Your task to perform on an android device: Open Youtube and go to "Your channel" Image 0: 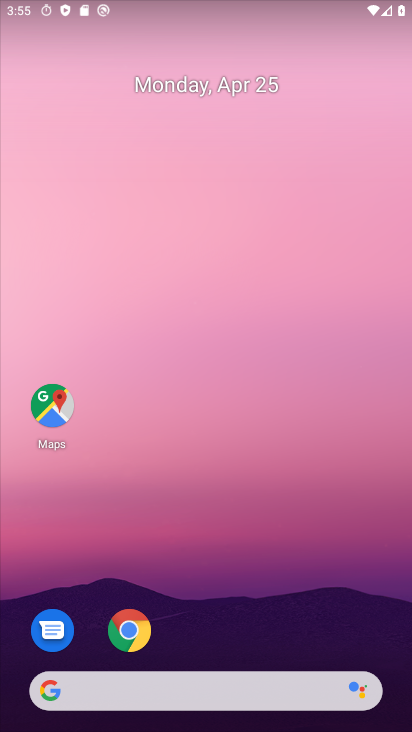
Step 0: drag from (341, 521) to (370, 100)
Your task to perform on an android device: Open Youtube and go to "Your channel" Image 1: 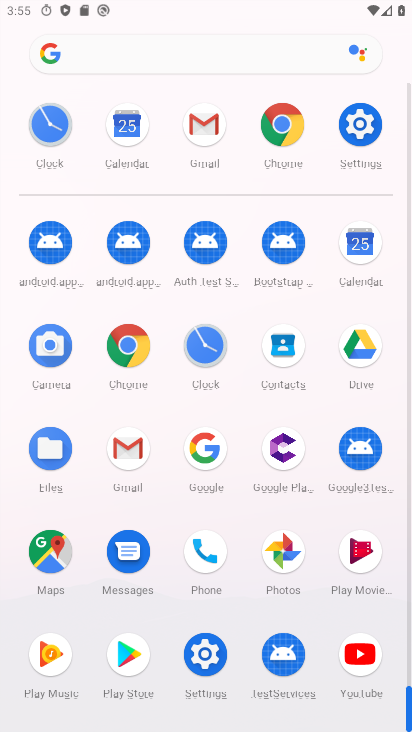
Step 1: drag from (407, 508) to (373, 110)
Your task to perform on an android device: Open Youtube and go to "Your channel" Image 2: 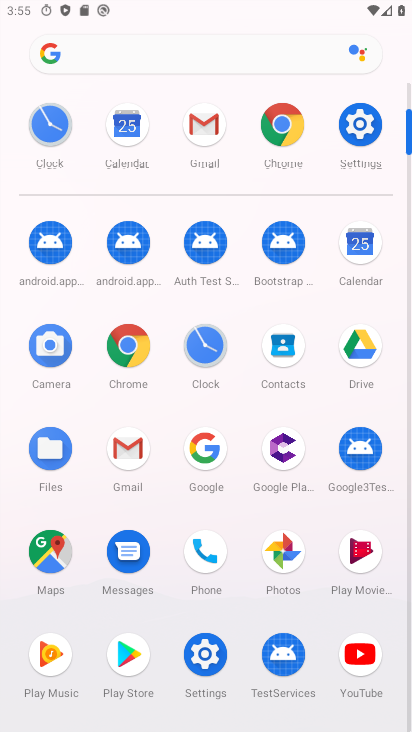
Step 2: click (361, 654)
Your task to perform on an android device: Open Youtube and go to "Your channel" Image 3: 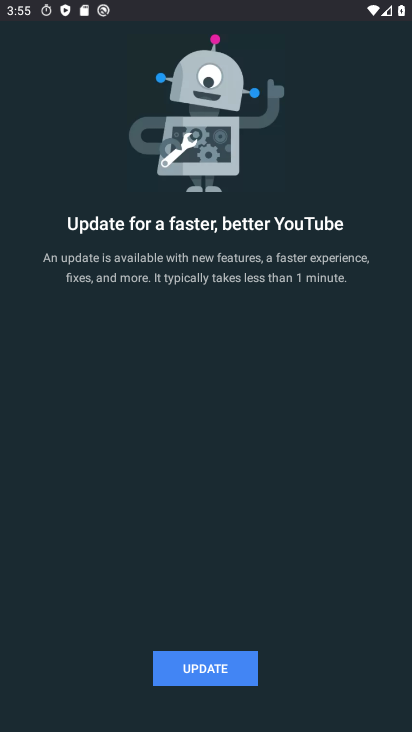
Step 3: click (217, 665)
Your task to perform on an android device: Open Youtube and go to "Your channel" Image 4: 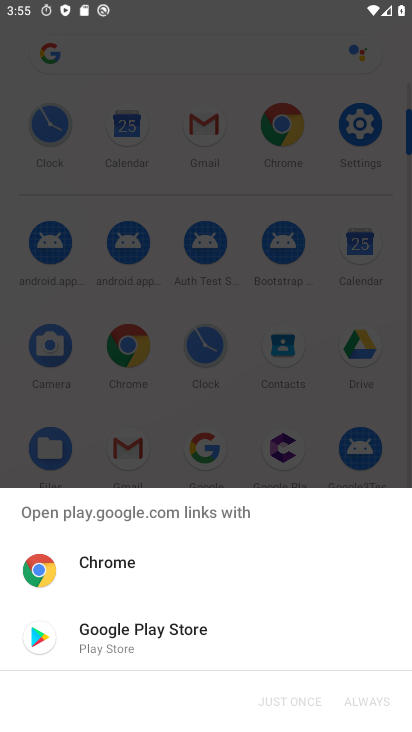
Step 4: click (136, 618)
Your task to perform on an android device: Open Youtube and go to "Your channel" Image 5: 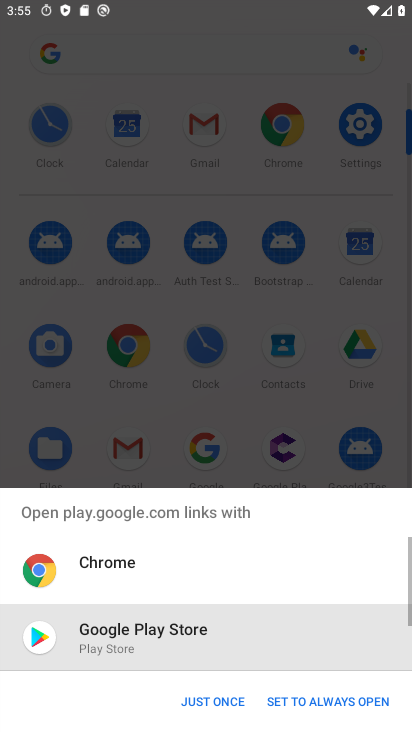
Step 5: click (198, 703)
Your task to perform on an android device: Open Youtube and go to "Your channel" Image 6: 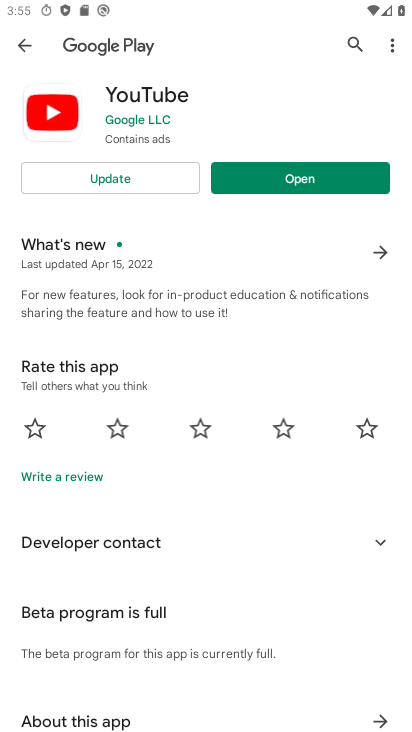
Step 6: click (125, 177)
Your task to perform on an android device: Open Youtube and go to "Your channel" Image 7: 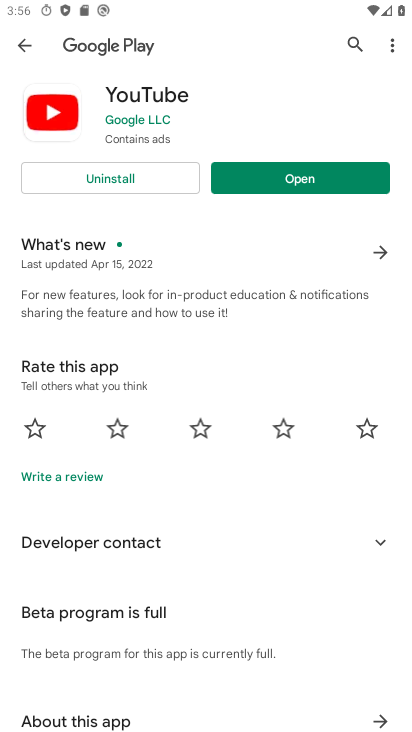
Step 7: click (292, 179)
Your task to perform on an android device: Open Youtube and go to "Your channel" Image 8: 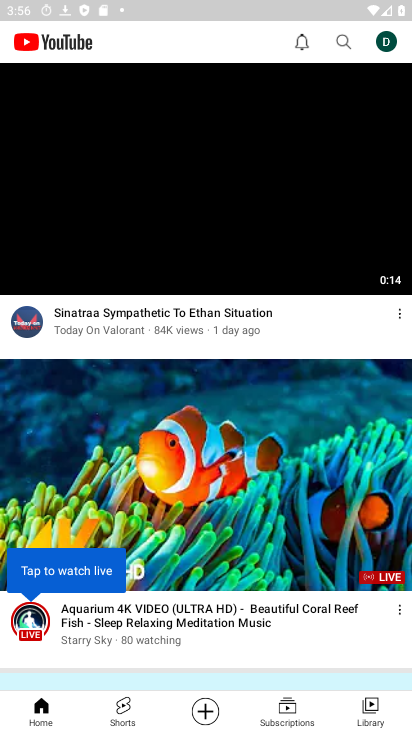
Step 8: click (383, 38)
Your task to perform on an android device: Open Youtube and go to "Your channel" Image 9: 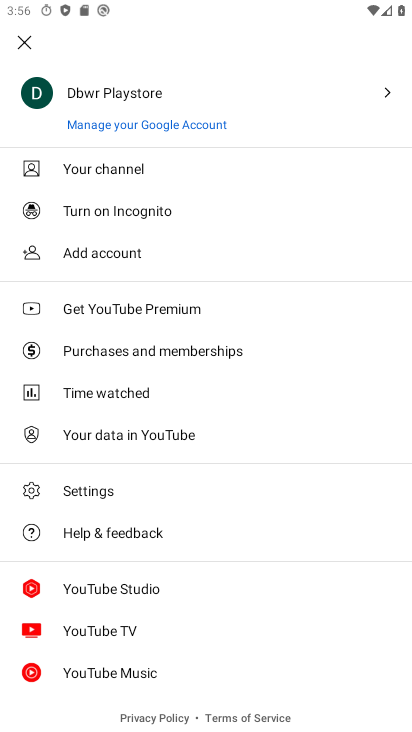
Step 9: click (103, 174)
Your task to perform on an android device: Open Youtube and go to "Your channel" Image 10: 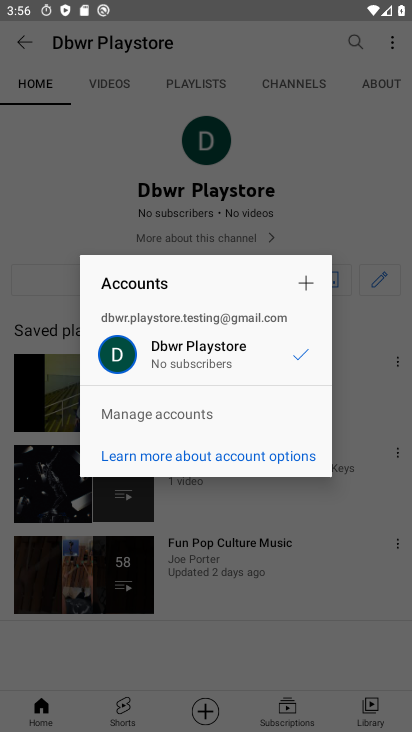
Step 10: task complete